Your task to perform on an android device: change the clock style Image 0: 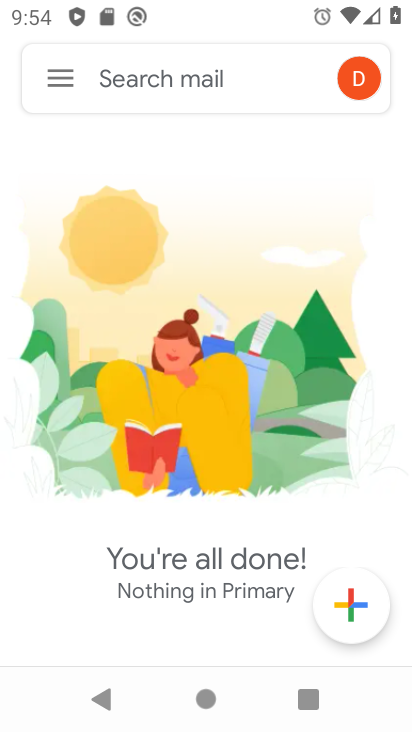
Step 0: press home button
Your task to perform on an android device: change the clock style Image 1: 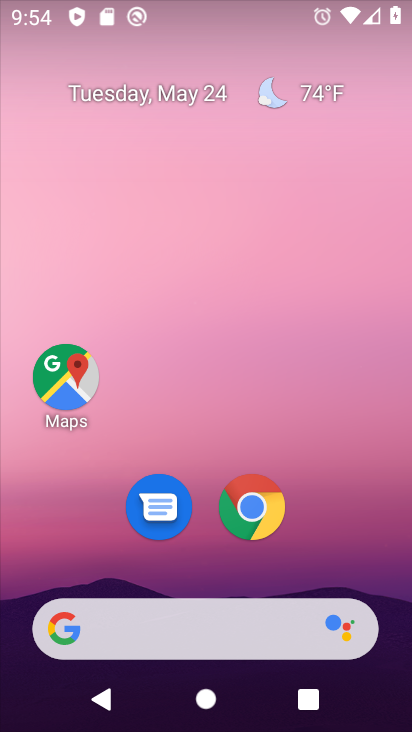
Step 1: drag from (223, 724) to (161, 111)
Your task to perform on an android device: change the clock style Image 2: 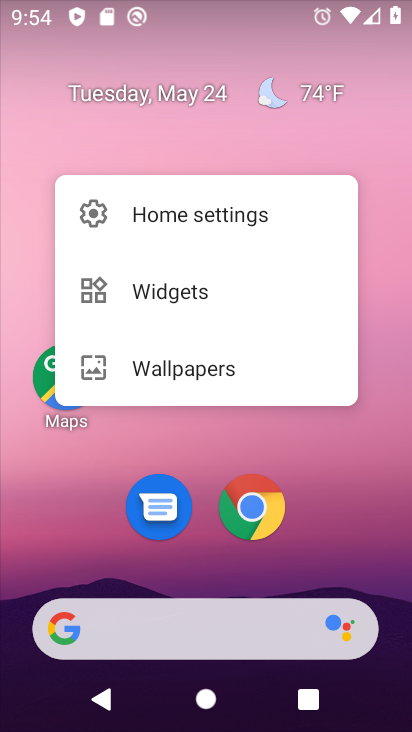
Step 2: click (223, 437)
Your task to perform on an android device: change the clock style Image 3: 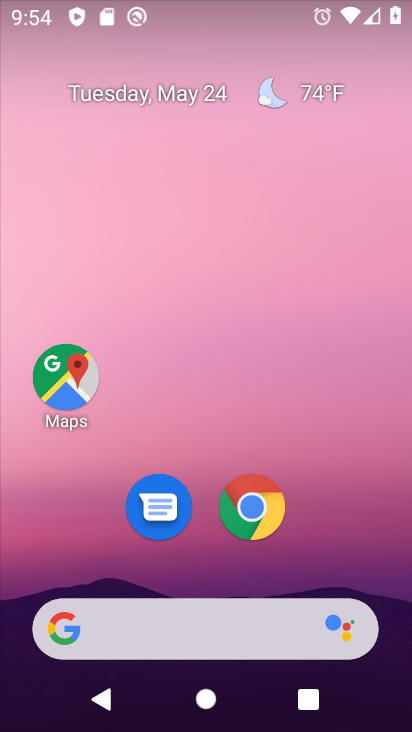
Step 3: drag from (229, 729) to (227, 115)
Your task to perform on an android device: change the clock style Image 4: 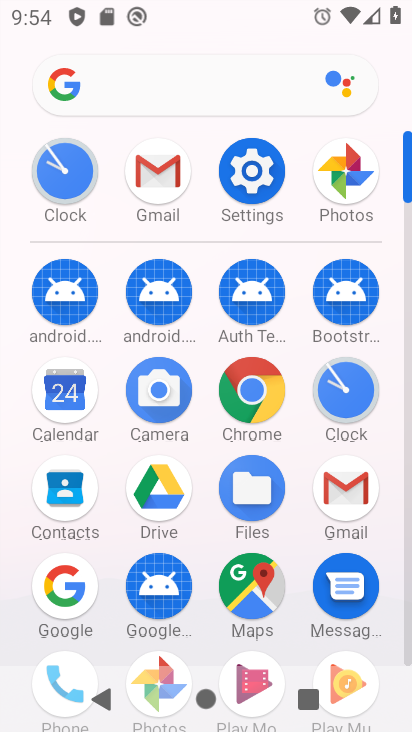
Step 4: click (359, 397)
Your task to perform on an android device: change the clock style Image 5: 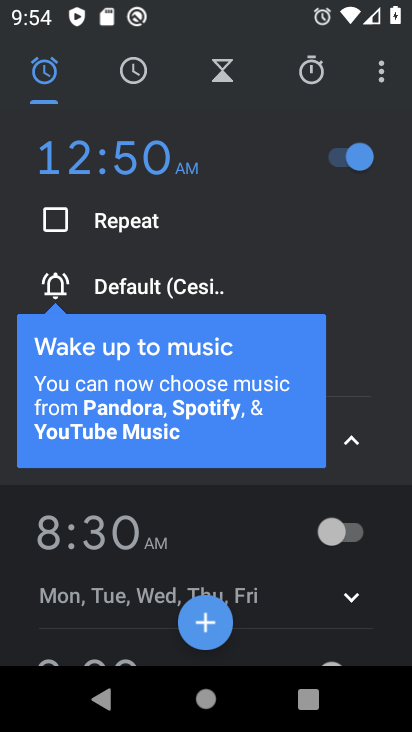
Step 5: click (383, 78)
Your task to perform on an android device: change the clock style Image 6: 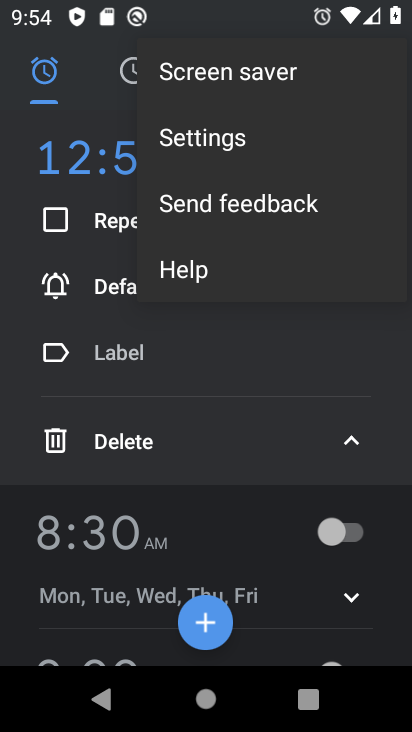
Step 6: click (202, 133)
Your task to perform on an android device: change the clock style Image 7: 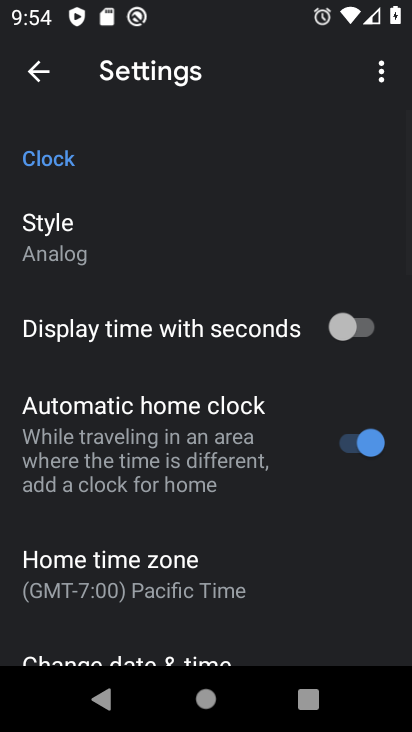
Step 7: click (46, 244)
Your task to perform on an android device: change the clock style Image 8: 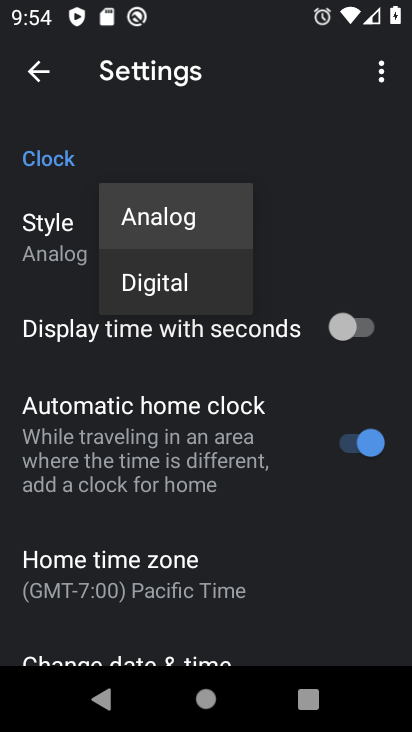
Step 8: click (156, 276)
Your task to perform on an android device: change the clock style Image 9: 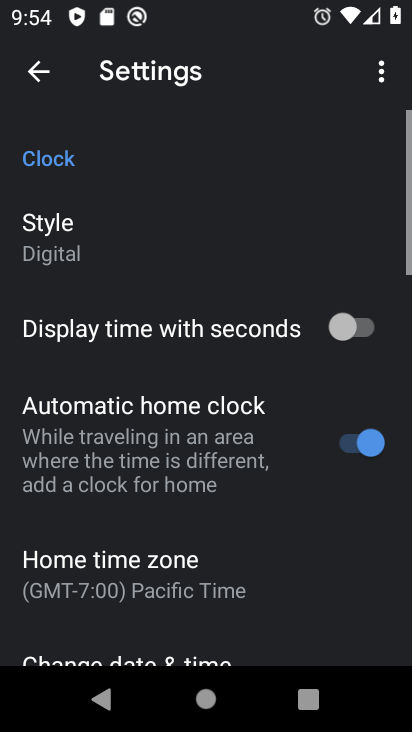
Step 9: task complete